Your task to perform on an android device: delete a single message in the gmail app Image 0: 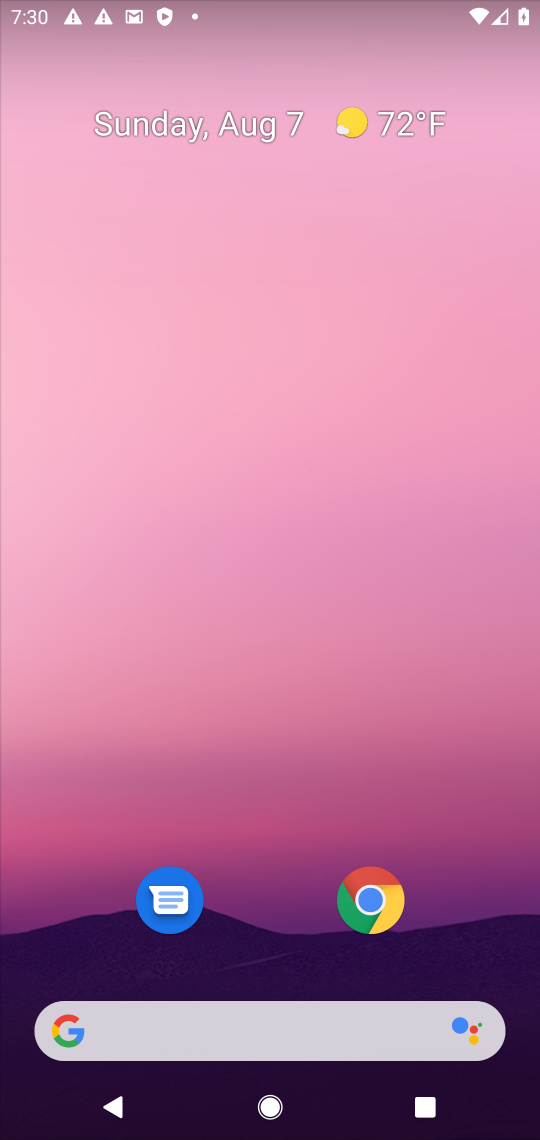
Step 0: drag from (260, 1019) to (498, 95)
Your task to perform on an android device: delete a single message in the gmail app Image 1: 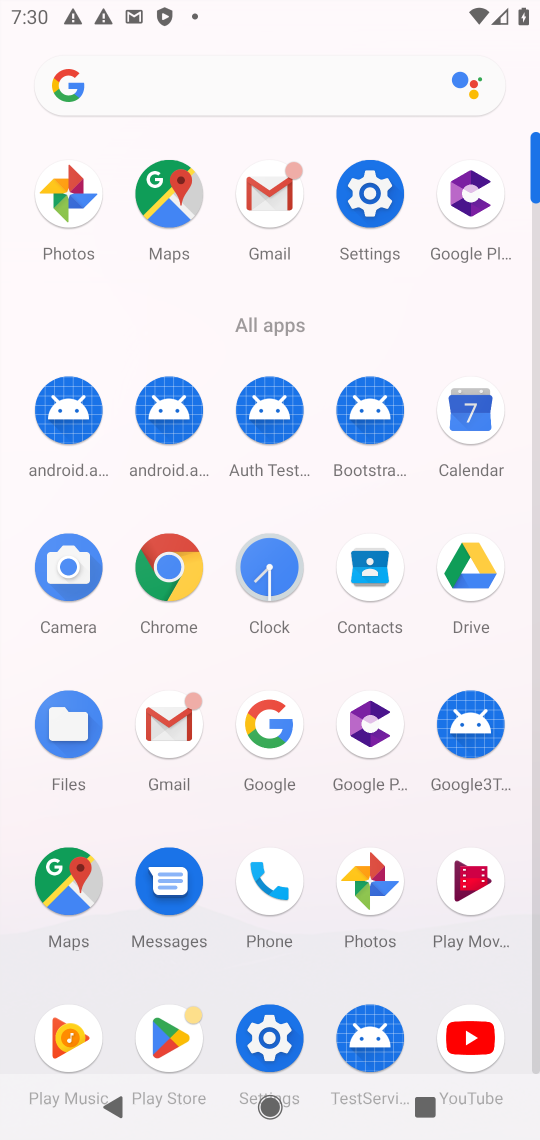
Step 1: click (161, 720)
Your task to perform on an android device: delete a single message in the gmail app Image 2: 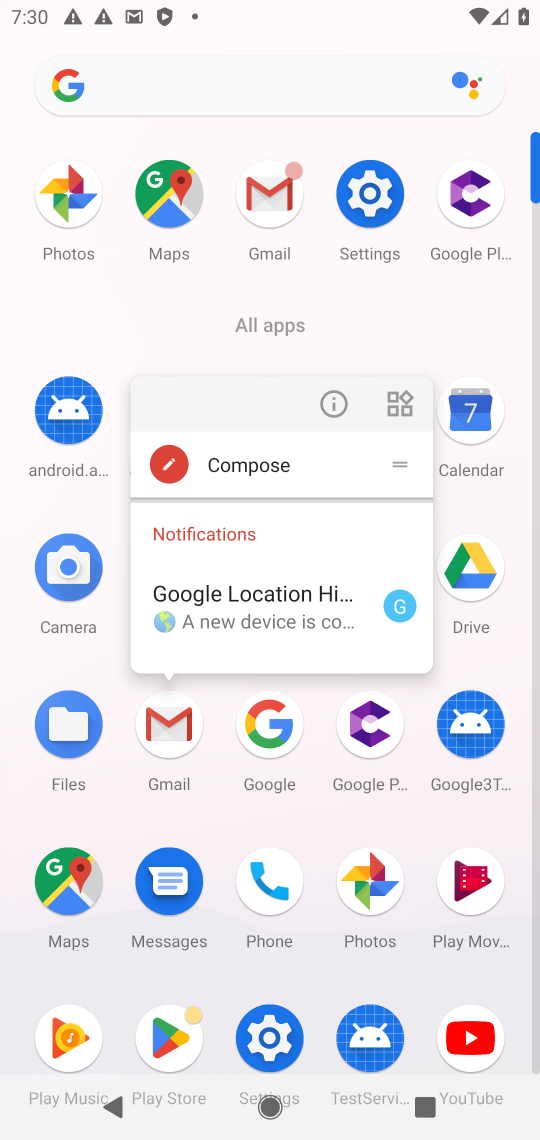
Step 2: click (182, 722)
Your task to perform on an android device: delete a single message in the gmail app Image 3: 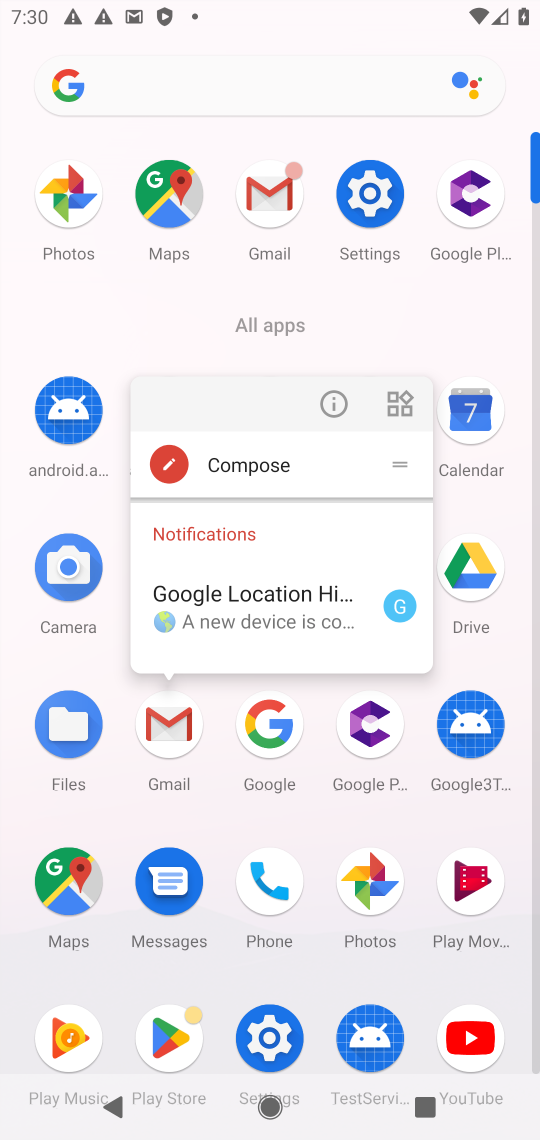
Step 3: click (280, 199)
Your task to perform on an android device: delete a single message in the gmail app Image 4: 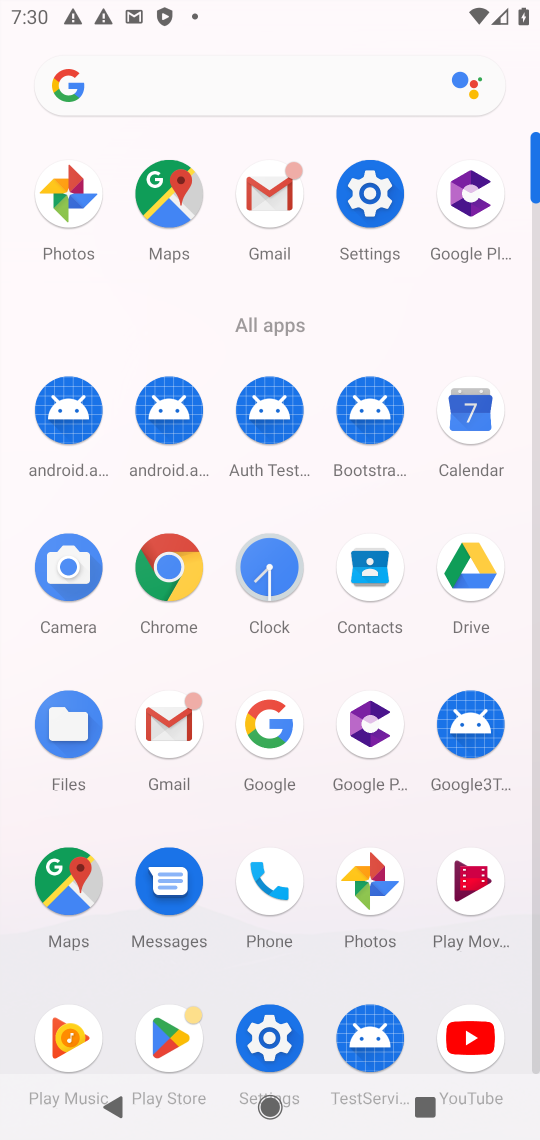
Step 4: click (264, 210)
Your task to perform on an android device: delete a single message in the gmail app Image 5: 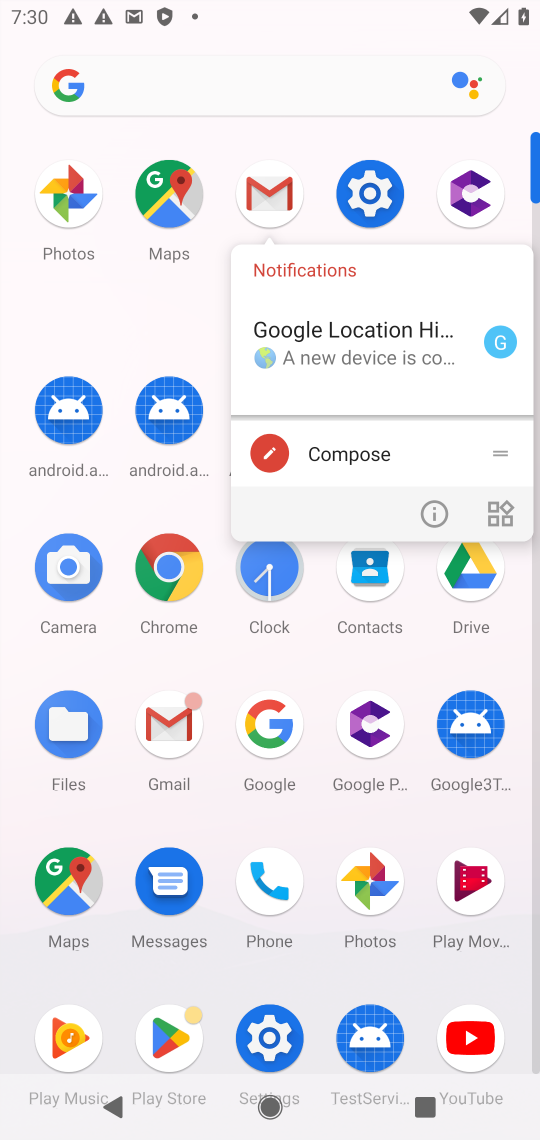
Step 5: click (269, 188)
Your task to perform on an android device: delete a single message in the gmail app Image 6: 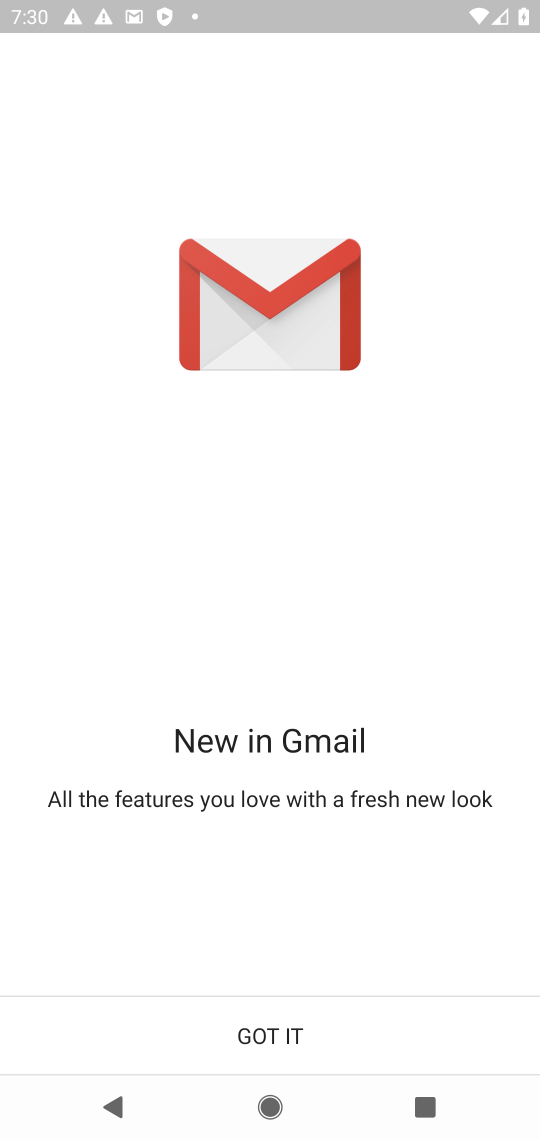
Step 6: click (246, 1035)
Your task to perform on an android device: delete a single message in the gmail app Image 7: 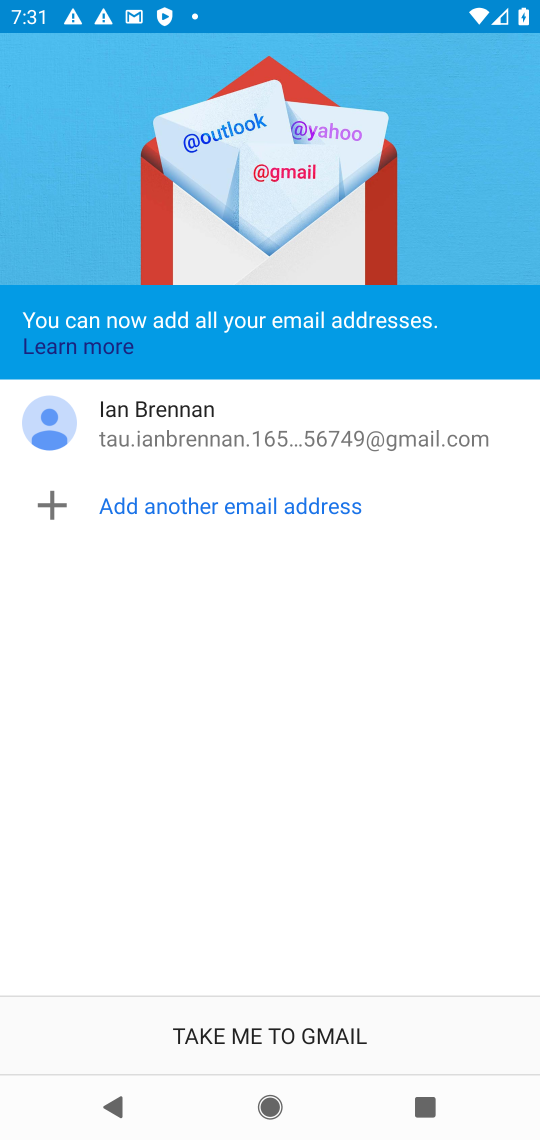
Step 7: click (251, 1030)
Your task to perform on an android device: delete a single message in the gmail app Image 8: 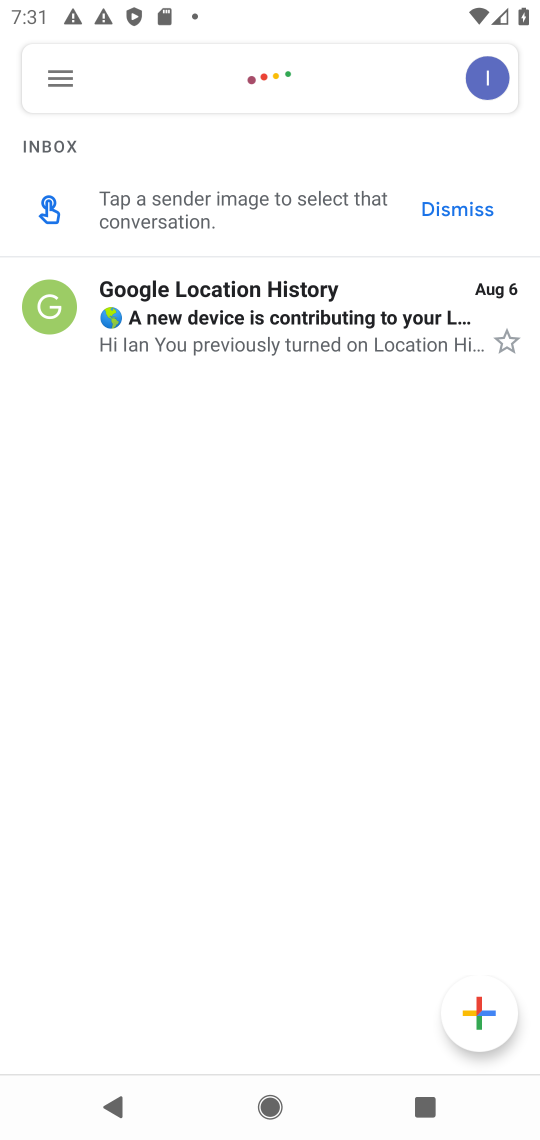
Step 8: click (55, 302)
Your task to perform on an android device: delete a single message in the gmail app Image 9: 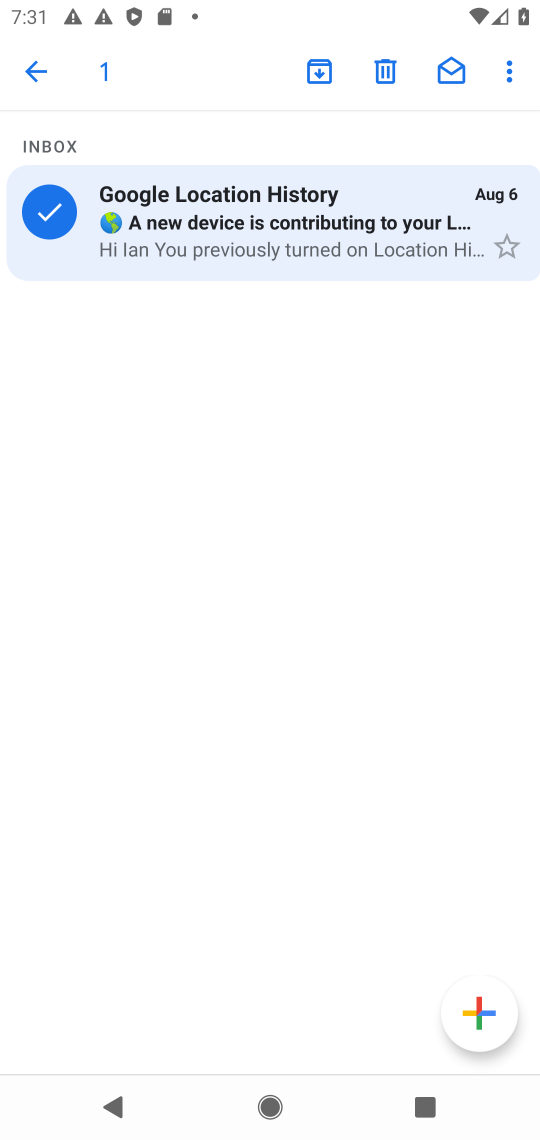
Step 9: click (379, 67)
Your task to perform on an android device: delete a single message in the gmail app Image 10: 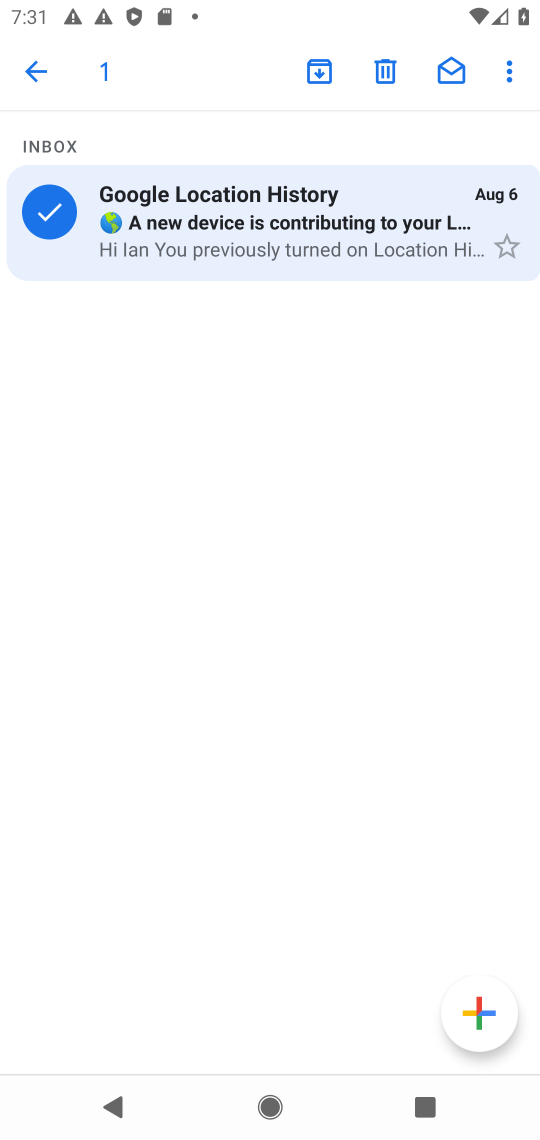
Step 10: click (384, 77)
Your task to perform on an android device: delete a single message in the gmail app Image 11: 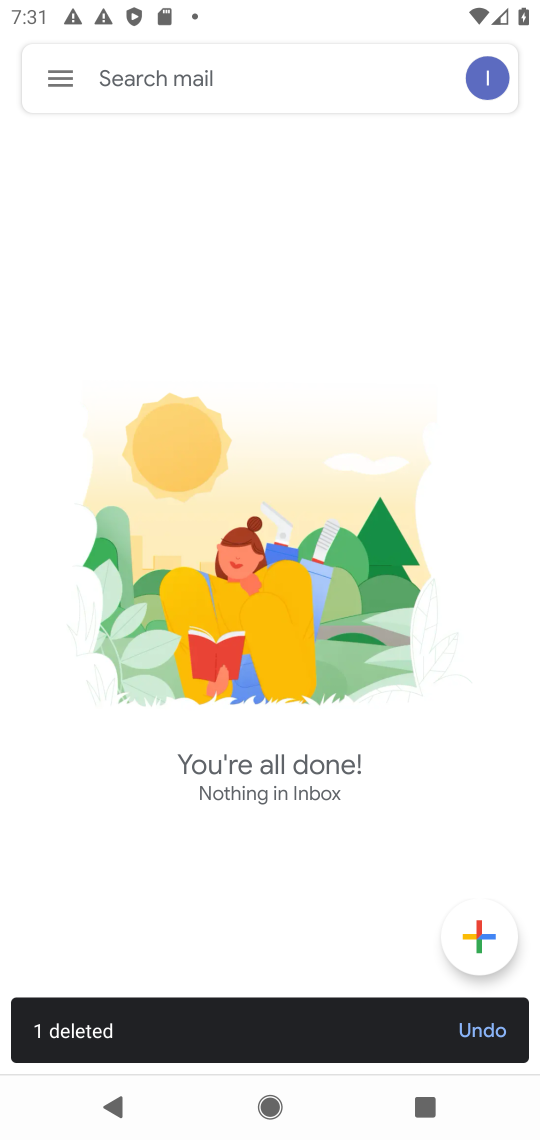
Step 11: task complete